Your task to perform on an android device: Do I have any events today? Image 0: 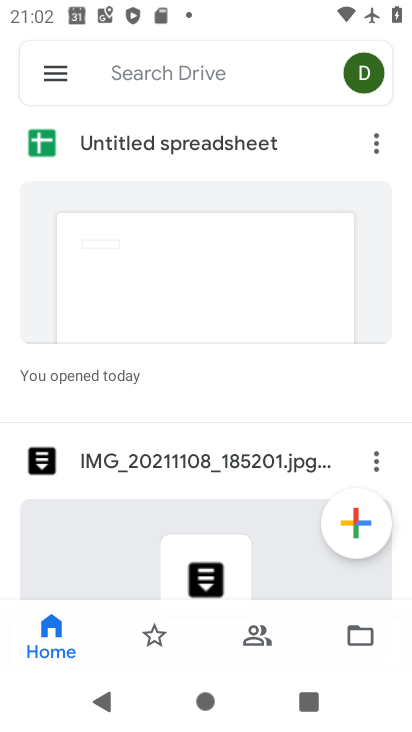
Step 0: press home button
Your task to perform on an android device: Do I have any events today? Image 1: 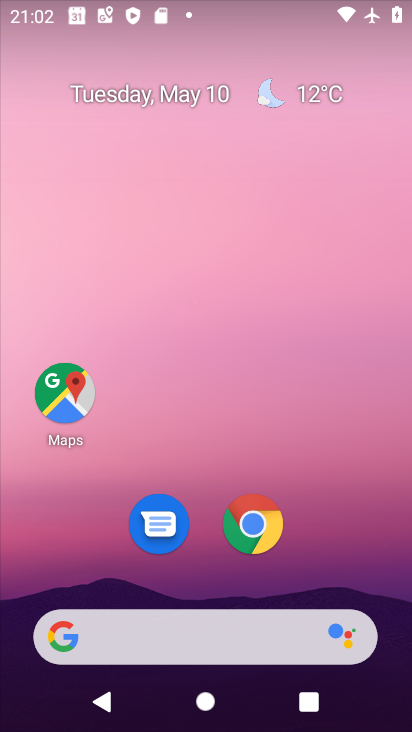
Step 1: drag from (210, 432) to (203, 0)
Your task to perform on an android device: Do I have any events today? Image 2: 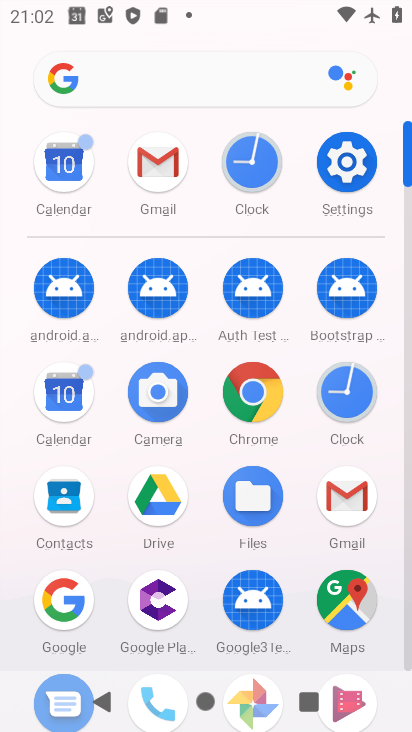
Step 2: click (70, 179)
Your task to perform on an android device: Do I have any events today? Image 3: 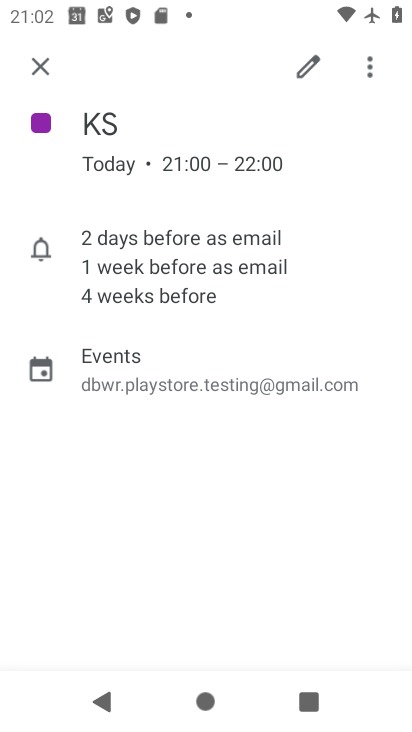
Step 3: click (37, 61)
Your task to perform on an android device: Do I have any events today? Image 4: 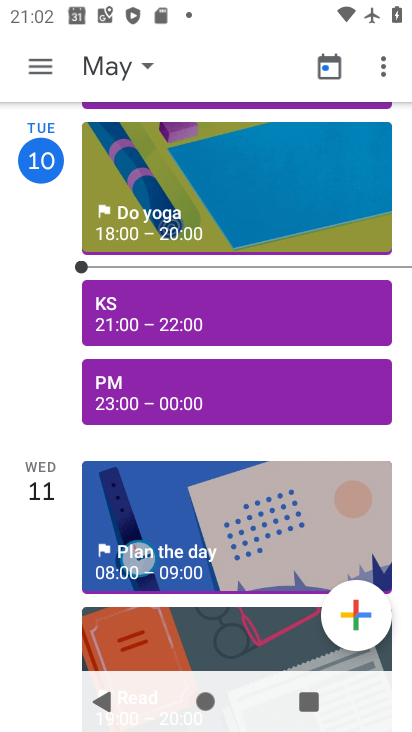
Step 4: task complete